Your task to perform on an android device: find photos in the google photos app Image 0: 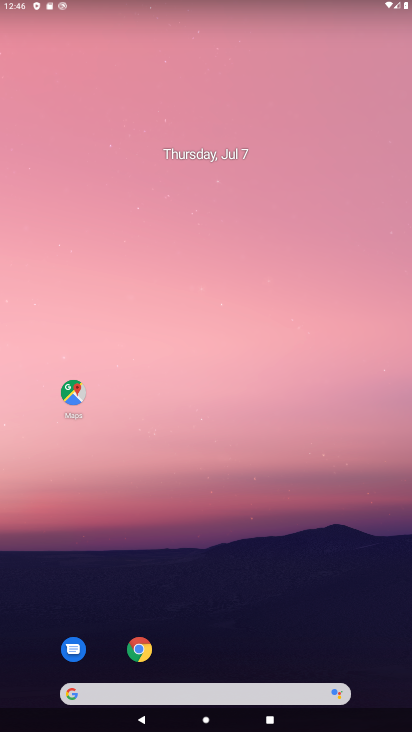
Step 0: drag from (172, 685) to (145, 151)
Your task to perform on an android device: find photos in the google photos app Image 1: 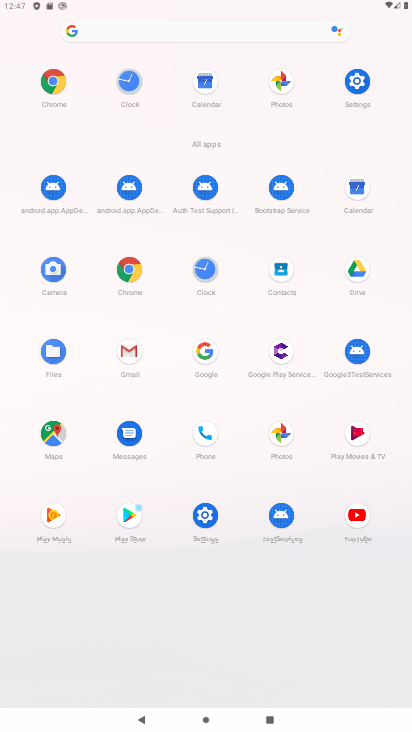
Step 1: click (294, 443)
Your task to perform on an android device: find photos in the google photos app Image 2: 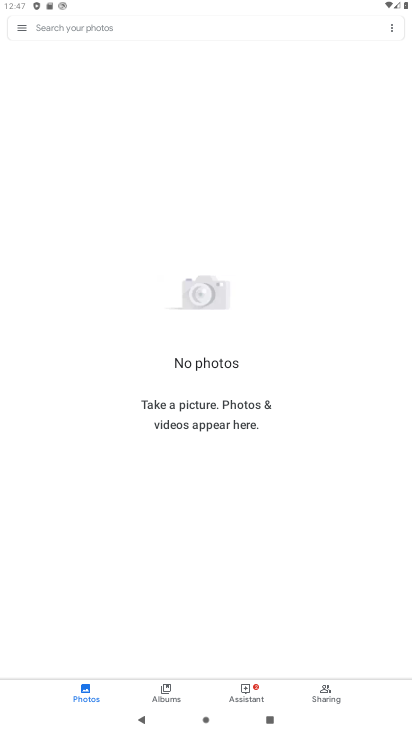
Step 2: task complete